Your task to perform on an android device: turn on bluetooth scan Image 0: 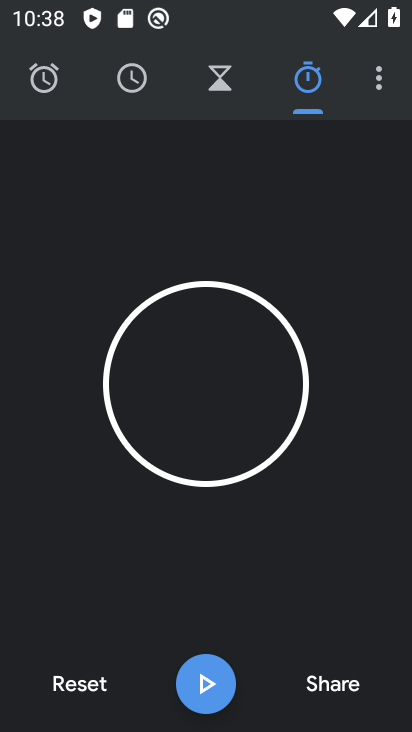
Step 0: press home button
Your task to perform on an android device: turn on bluetooth scan Image 1: 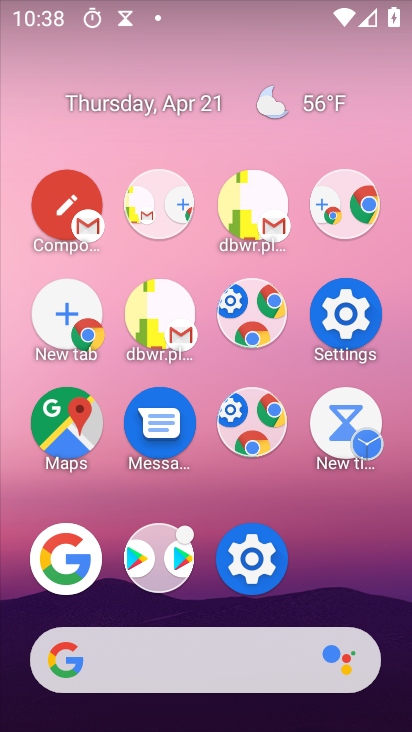
Step 1: drag from (273, 646) to (185, 163)
Your task to perform on an android device: turn on bluetooth scan Image 2: 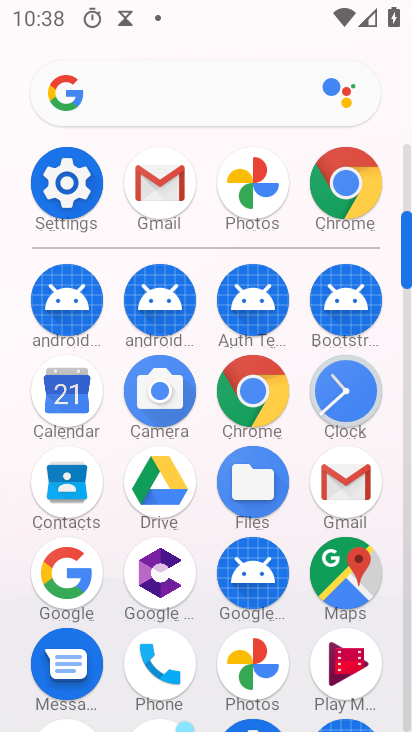
Step 2: click (51, 179)
Your task to perform on an android device: turn on bluetooth scan Image 3: 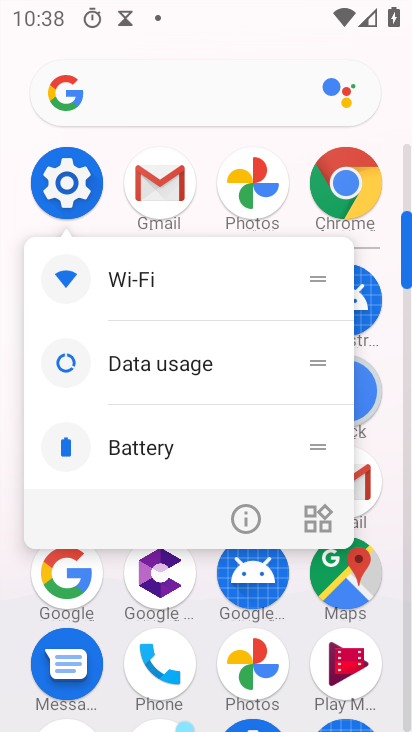
Step 3: click (63, 187)
Your task to perform on an android device: turn on bluetooth scan Image 4: 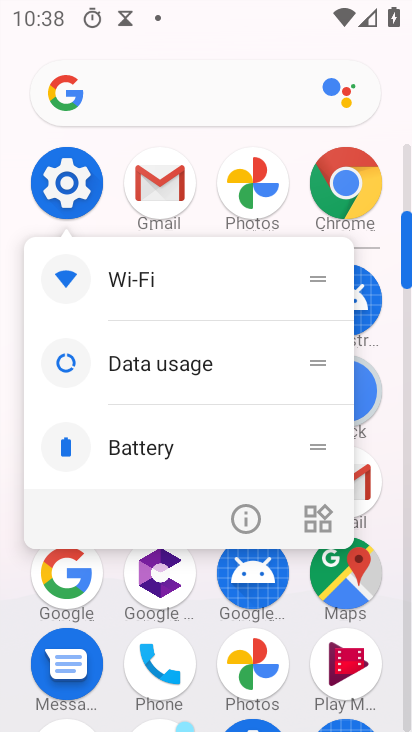
Step 4: click (65, 181)
Your task to perform on an android device: turn on bluetooth scan Image 5: 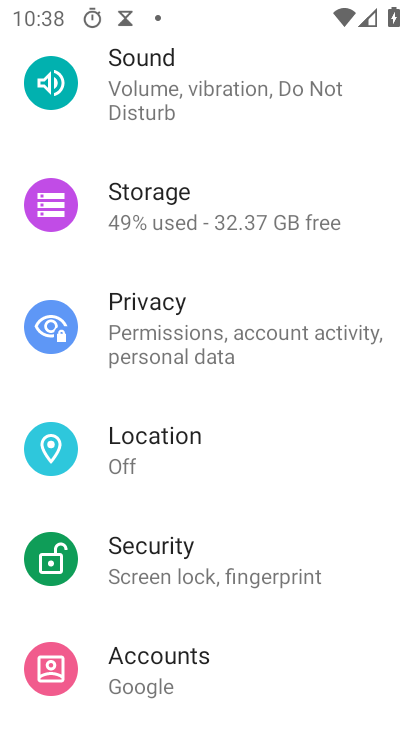
Step 5: click (73, 187)
Your task to perform on an android device: turn on bluetooth scan Image 6: 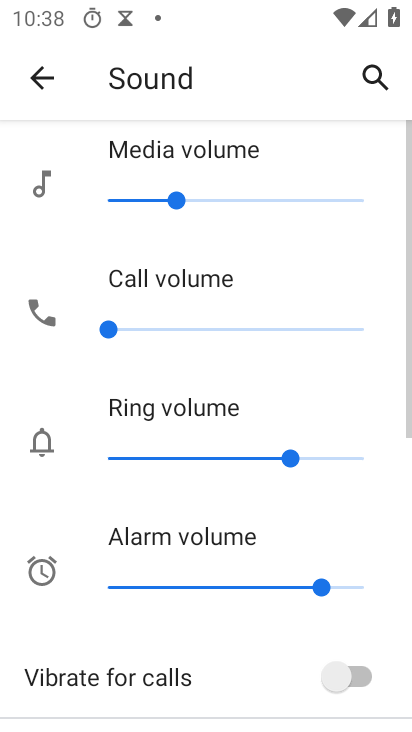
Step 6: click (34, 72)
Your task to perform on an android device: turn on bluetooth scan Image 7: 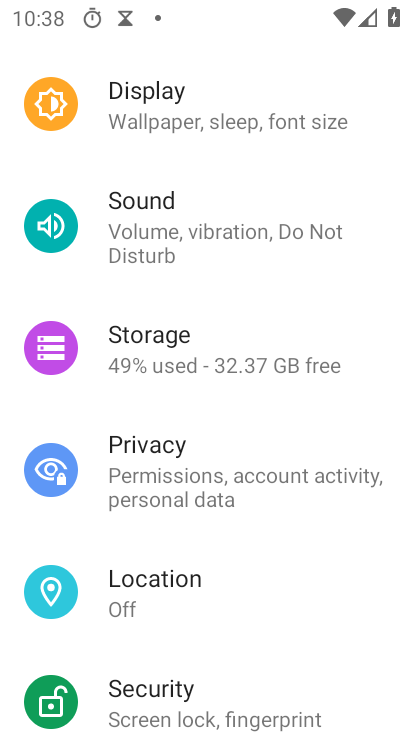
Step 7: click (167, 571)
Your task to perform on an android device: turn on bluetooth scan Image 8: 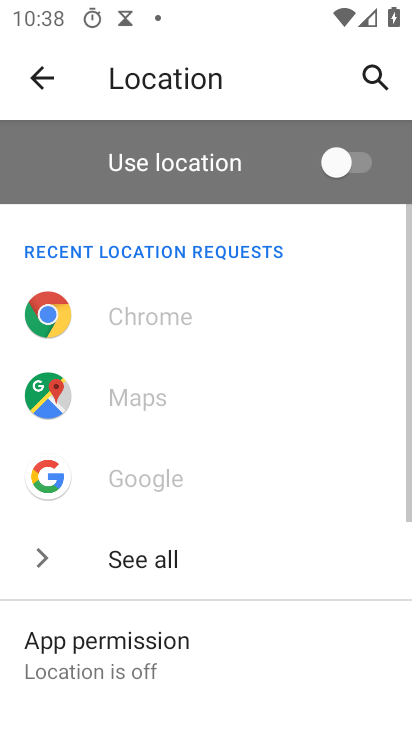
Step 8: drag from (188, 615) to (138, 263)
Your task to perform on an android device: turn on bluetooth scan Image 9: 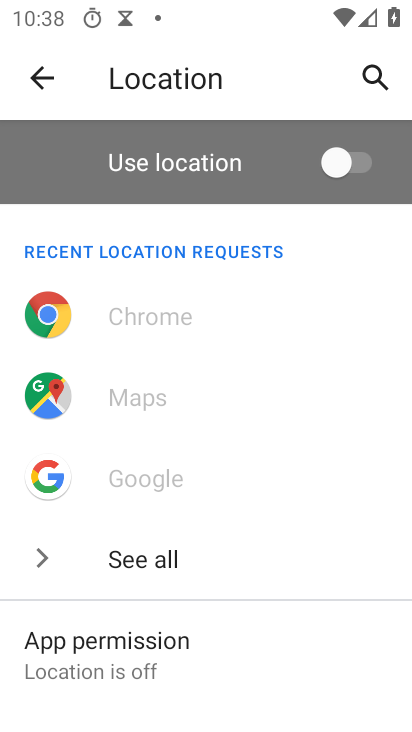
Step 9: drag from (260, 607) to (221, 295)
Your task to perform on an android device: turn on bluetooth scan Image 10: 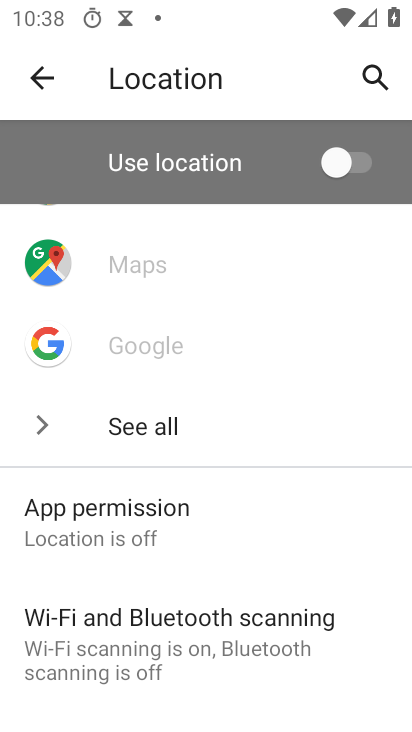
Step 10: click (99, 635)
Your task to perform on an android device: turn on bluetooth scan Image 11: 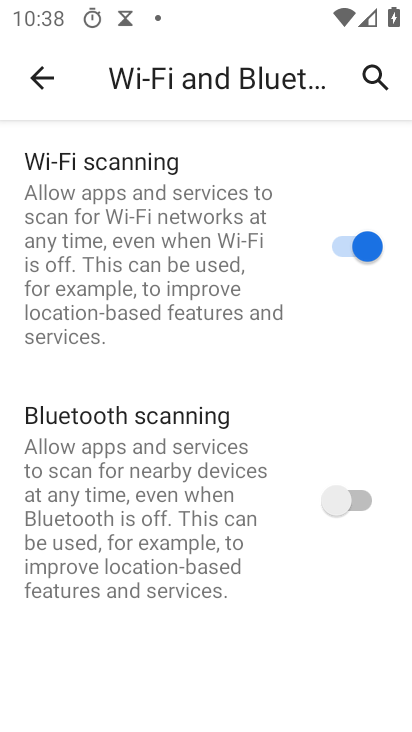
Step 11: click (344, 503)
Your task to perform on an android device: turn on bluetooth scan Image 12: 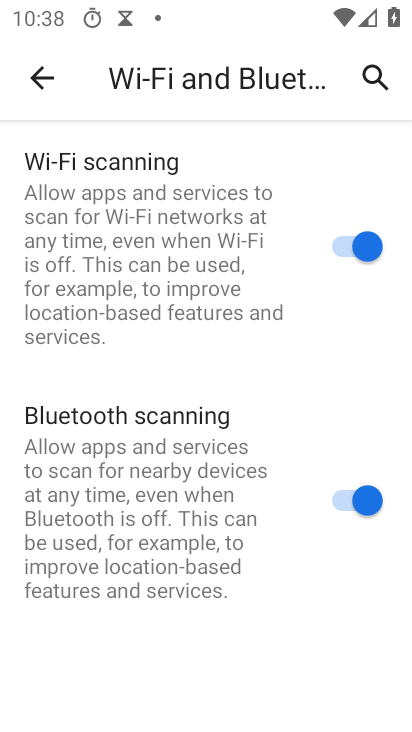
Step 12: task complete